Your task to perform on an android device: Turn on the flashlight Image 0: 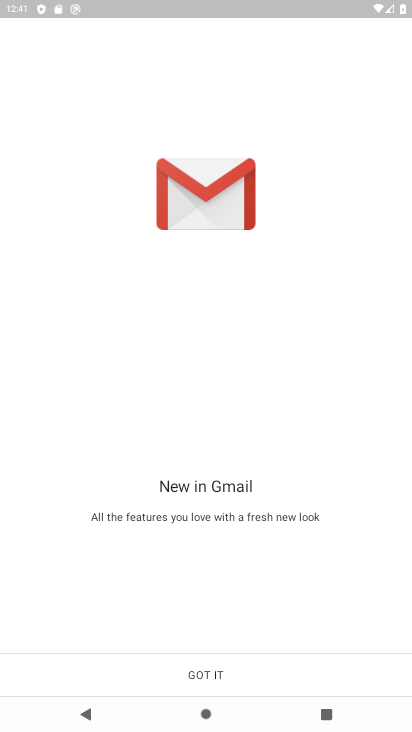
Step 0: drag from (269, 3) to (340, 18)
Your task to perform on an android device: Turn on the flashlight Image 1: 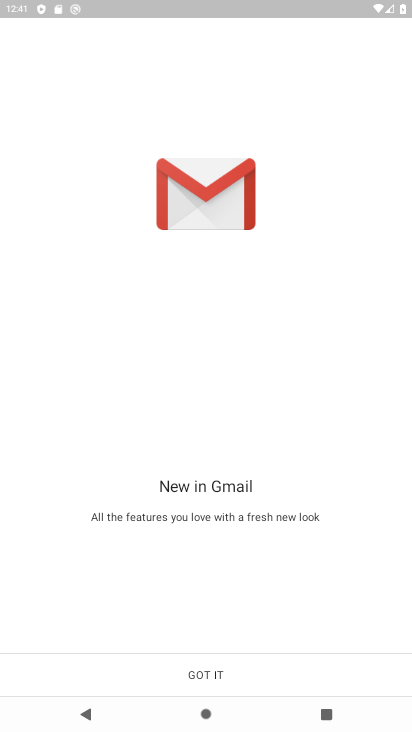
Step 1: task complete